Your task to perform on an android device: Open Youtube and go to the subscriptions tab Image 0: 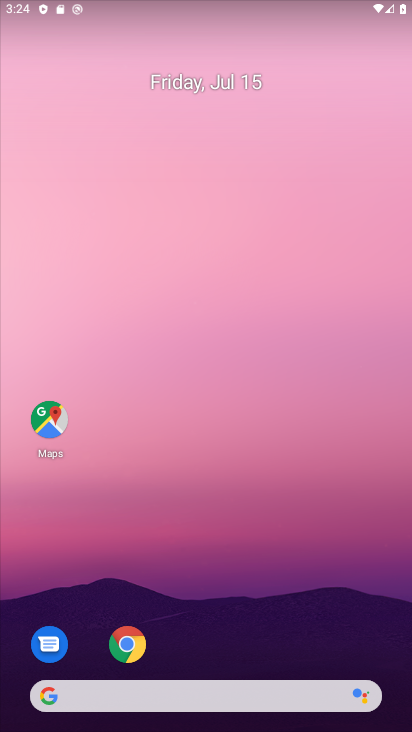
Step 0: drag from (287, 638) to (273, 119)
Your task to perform on an android device: Open Youtube and go to the subscriptions tab Image 1: 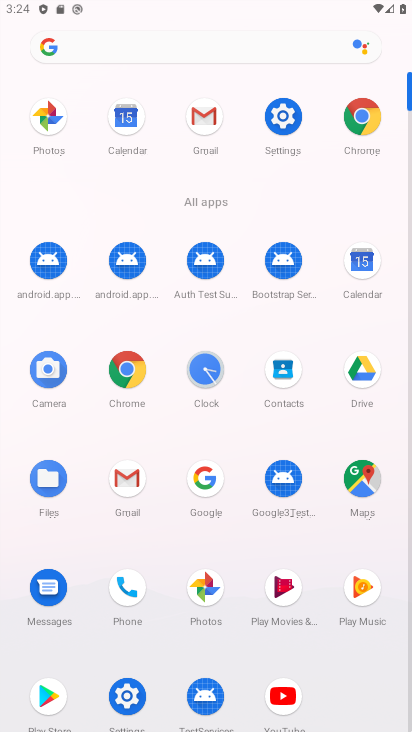
Step 1: click (276, 692)
Your task to perform on an android device: Open Youtube and go to the subscriptions tab Image 2: 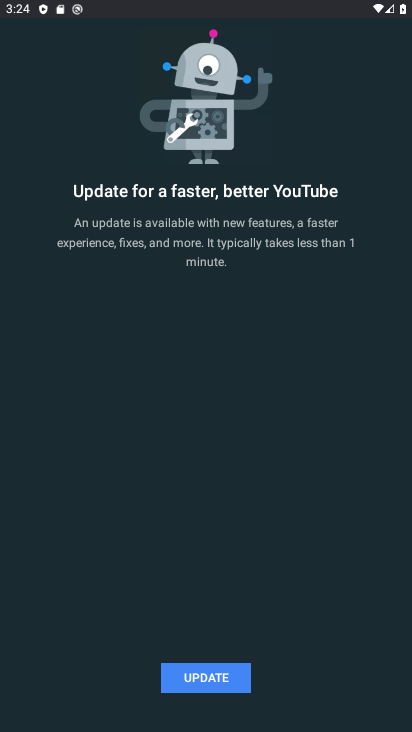
Step 2: click (200, 691)
Your task to perform on an android device: Open Youtube and go to the subscriptions tab Image 3: 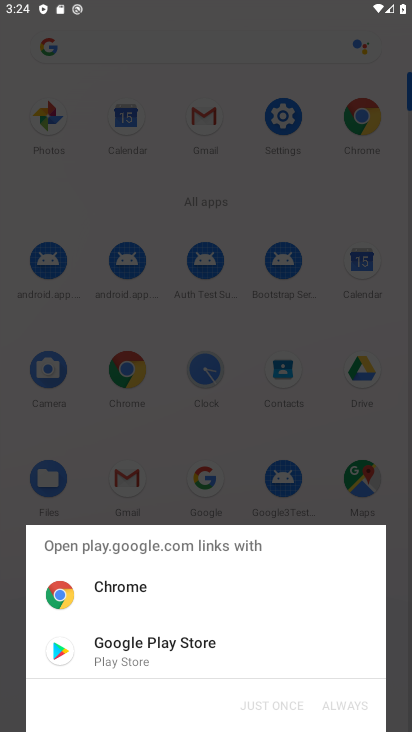
Step 3: click (193, 655)
Your task to perform on an android device: Open Youtube and go to the subscriptions tab Image 4: 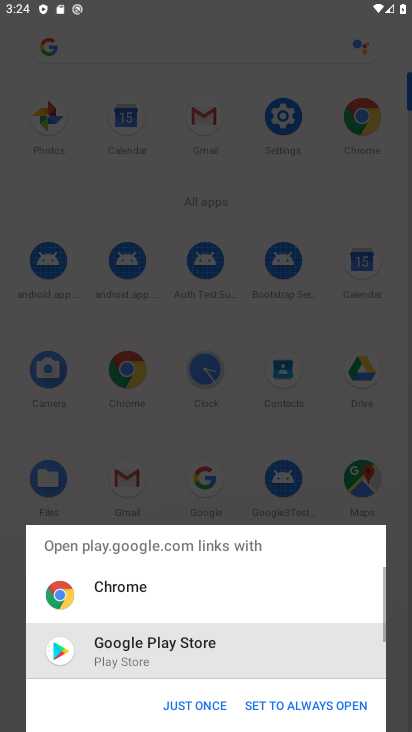
Step 4: click (195, 709)
Your task to perform on an android device: Open Youtube and go to the subscriptions tab Image 5: 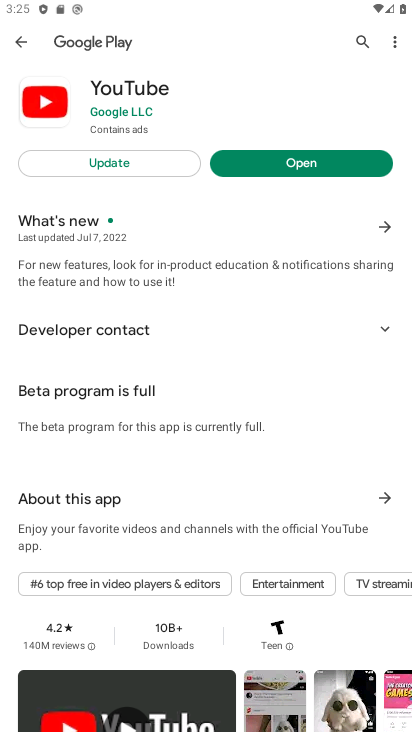
Step 5: click (171, 173)
Your task to perform on an android device: Open Youtube and go to the subscriptions tab Image 6: 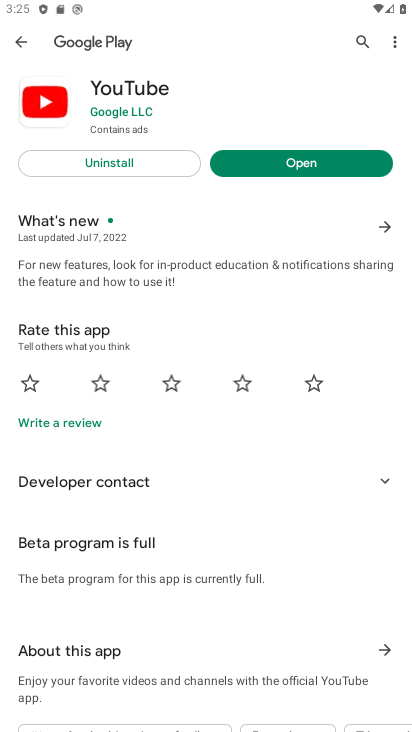
Step 6: click (323, 156)
Your task to perform on an android device: Open Youtube and go to the subscriptions tab Image 7: 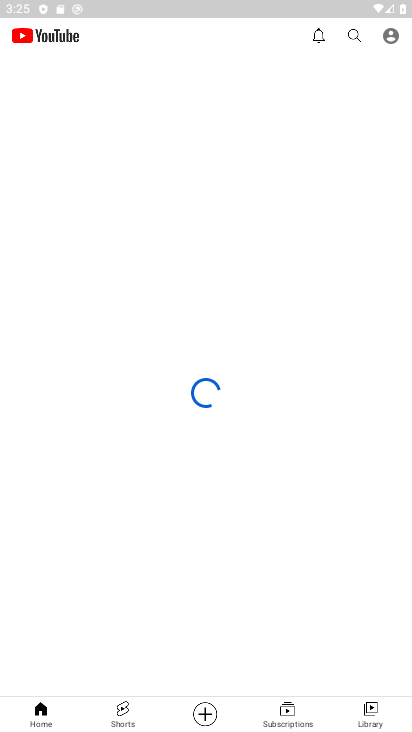
Step 7: click (258, 709)
Your task to perform on an android device: Open Youtube and go to the subscriptions tab Image 8: 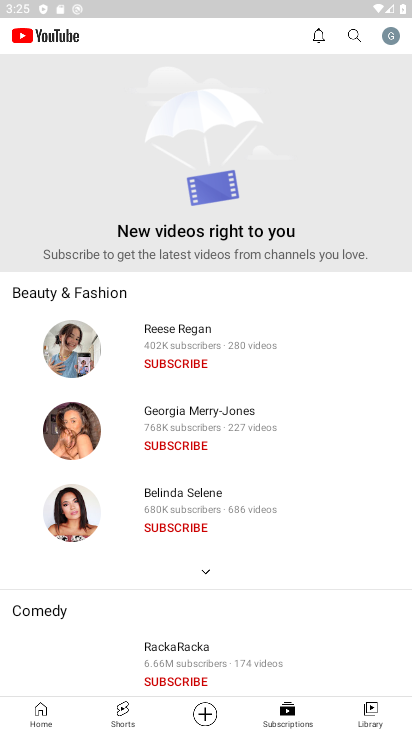
Step 8: task complete